Your task to perform on an android device: Open eBay Image 0: 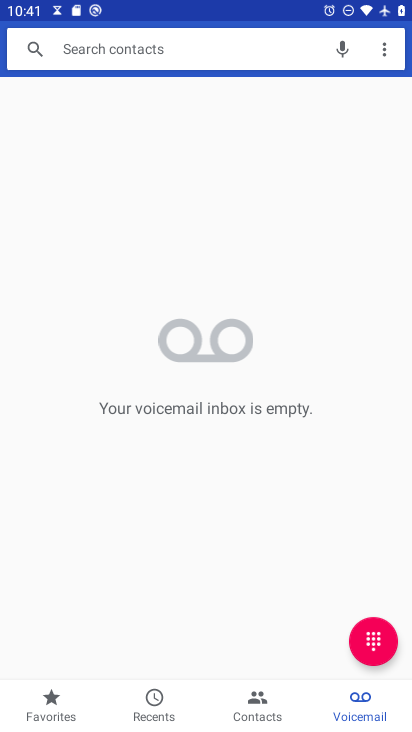
Step 0: press home button
Your task to perform on an android device: Open eBay Image 1: 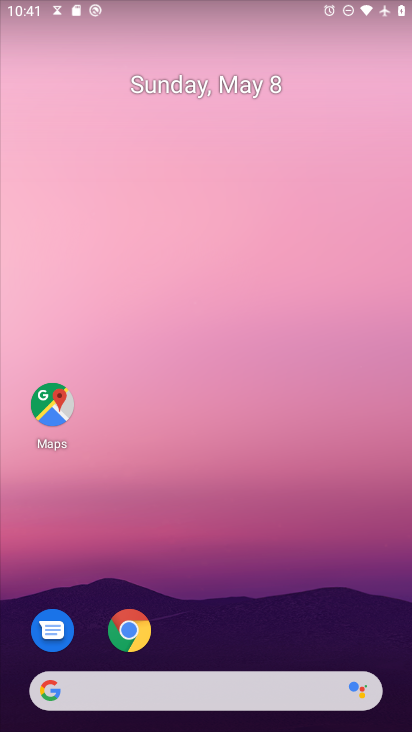
Step 1: drag from (213, 699) to (379, 87)
Your task to perform on an android device: Open eBay Image 2: 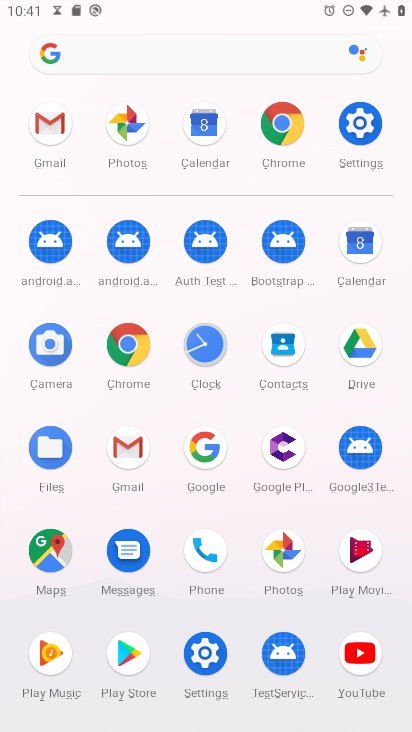
Step 2: click (290, 134)
Your task to perform on an android device: Open eBay Image 3: 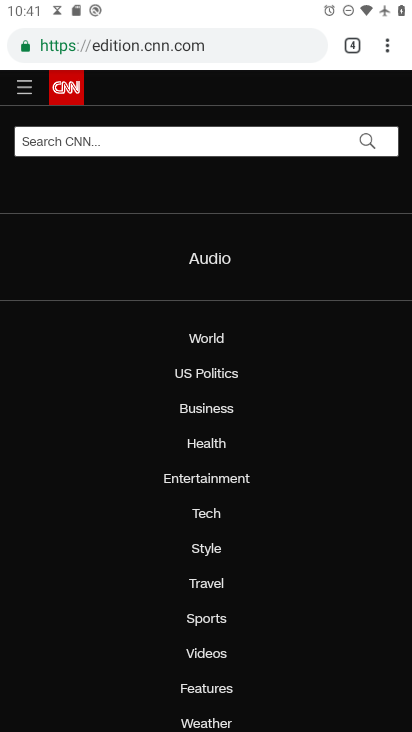
Step 3: drag from (391, 48) to (294, 95)
Your task to perform on an android device: Open eBay Image 4: 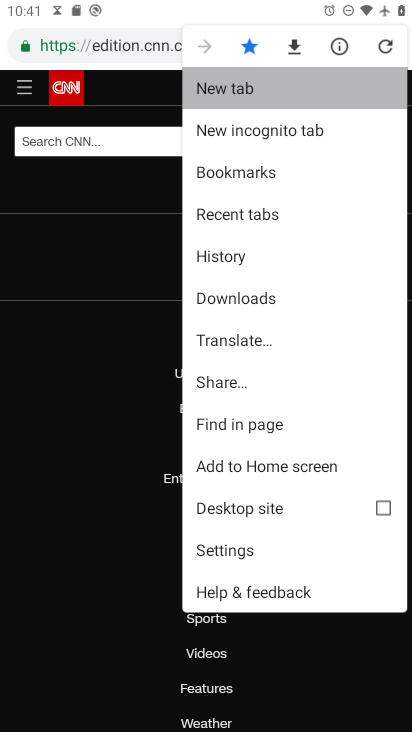
Step 4: click (294, 95)
Your task to perform on an android device: Open eBay Image 5: 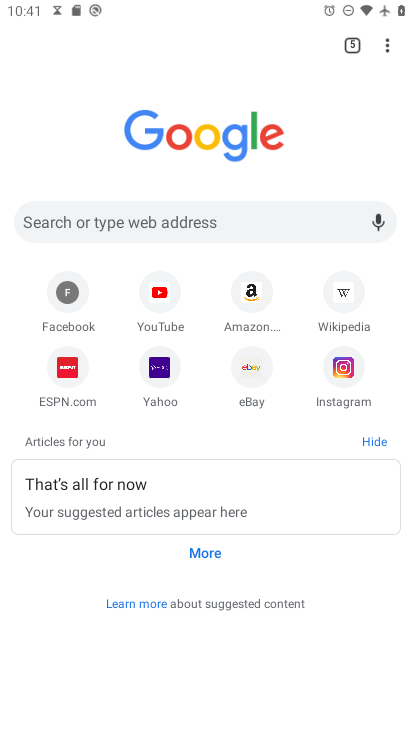
Step 5: click (261, 373)
Your task to perform on an android device: Open eBay Image 6: 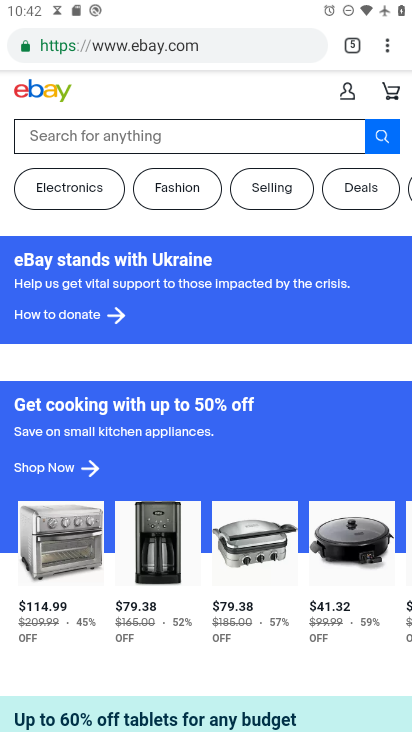
Step 6: task complete